Your task to perform on an android device: Open the calendar app, open the side menu, and click the "Day" option Image 0: 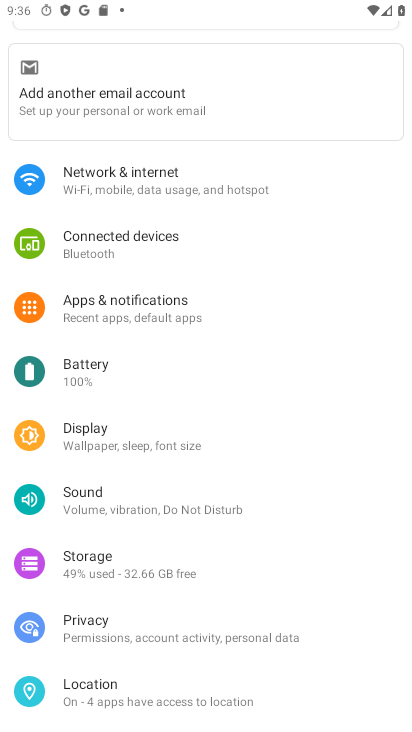
Step 0: press home button
Your task to perform on an android device: Open the calendar app, open the side menu, and click the "Day" option Image 1: 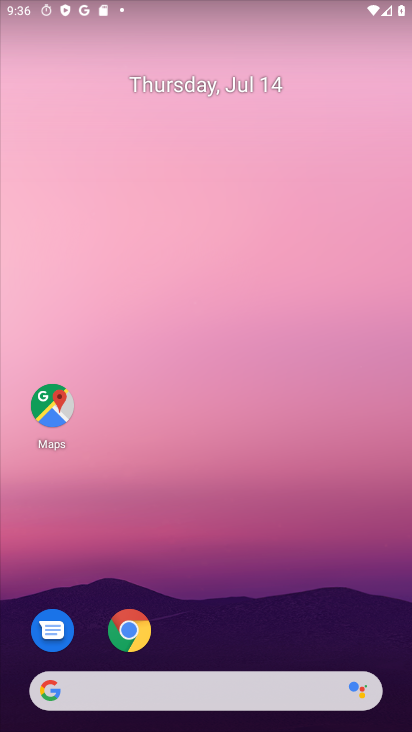
Step 1: drag from (11, 697) to (263, 34)
Your task to perform on an android device: Open the calendar app, open the side menu, and click the "Day" option Image 2: 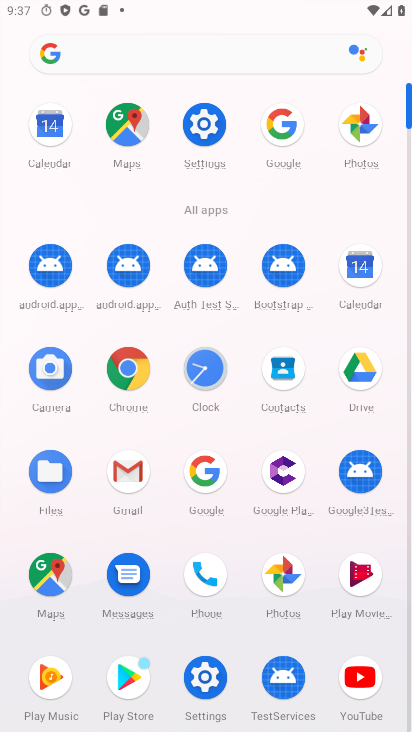
Step 2: click (364, 272)
Your task to perform on an android device: Open the calendar app, open the side menu, and click the "Day" option Image 3: 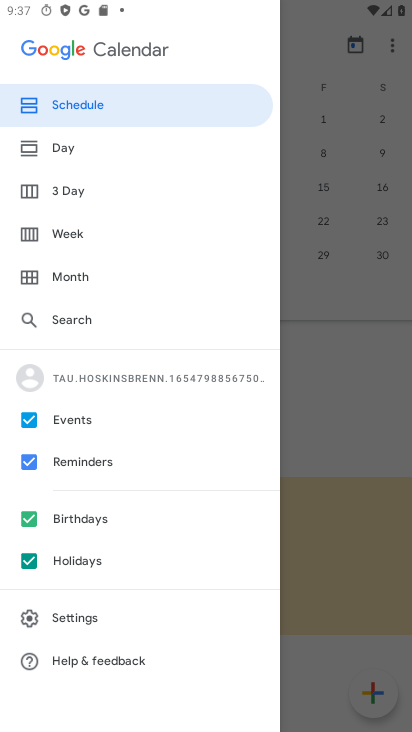
Step 3: click (74, 152)
Your task to perform on an android device: Open the calendar app, open the side menu, and click the "Day" option Image 4: 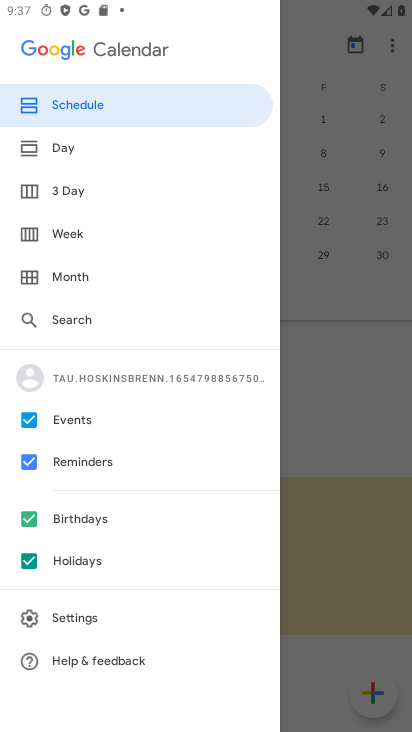
Step 4: click (55, 149)
Your task to perform on an android device: Open the calendar app, open the side menu, and click the "Day" option Image 5: 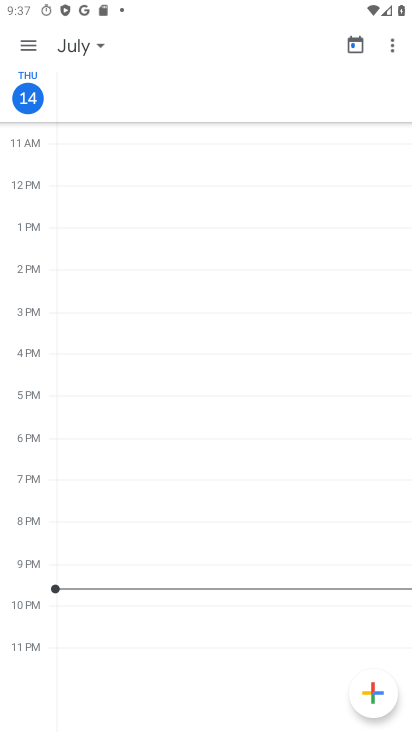
Step 5: task complete